Your task to perform on an android device: Go to privacy settings Image 0: 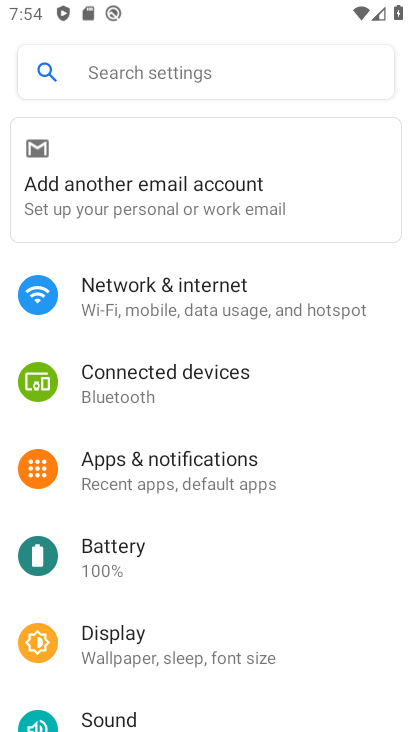
Step 0: drag from (122, 678) to (129, 91)
Your task to perform on an android device: Go to privacy settings Image 1: 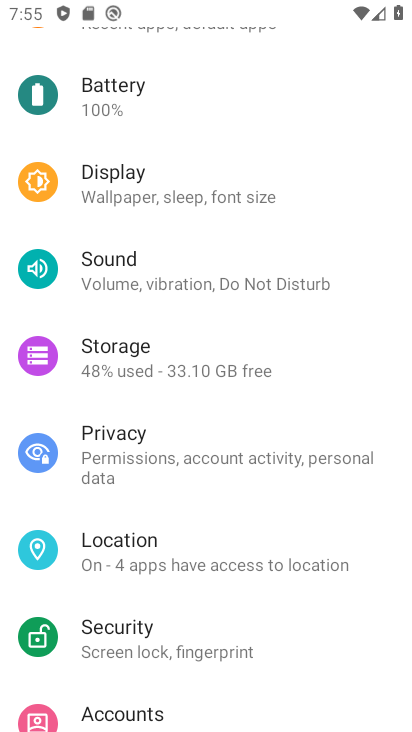
Step 1: click (154, 440)
Your task to perform on an android device: Go to privacy settings Image 2: 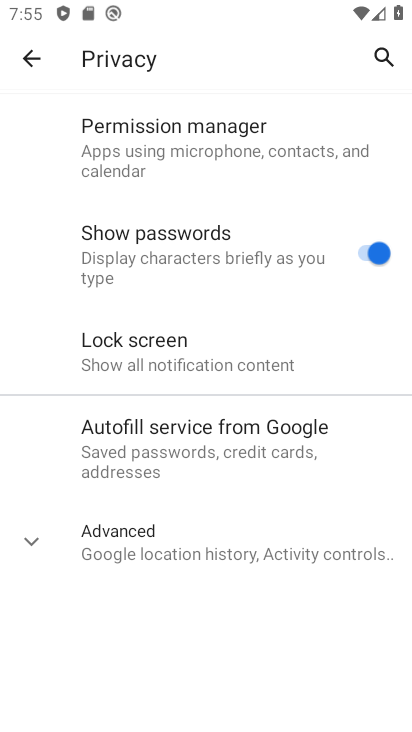
Step 2: task complete